Your task to perform on an android device: change alarm snooze length Image 0: 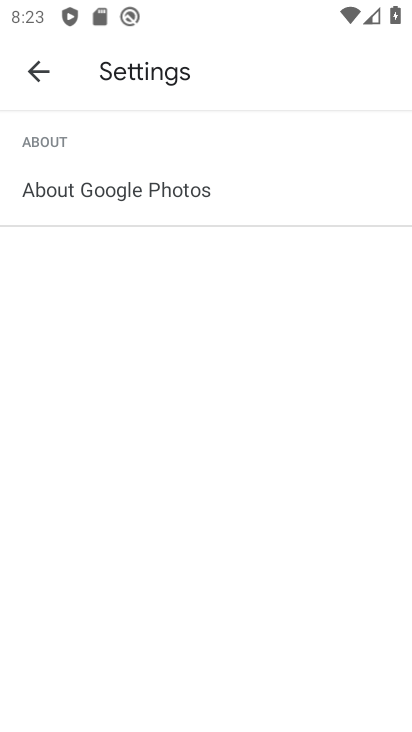
Step 0: press home button
Your task to perform on an android device: change alarm snooze length Image 1: 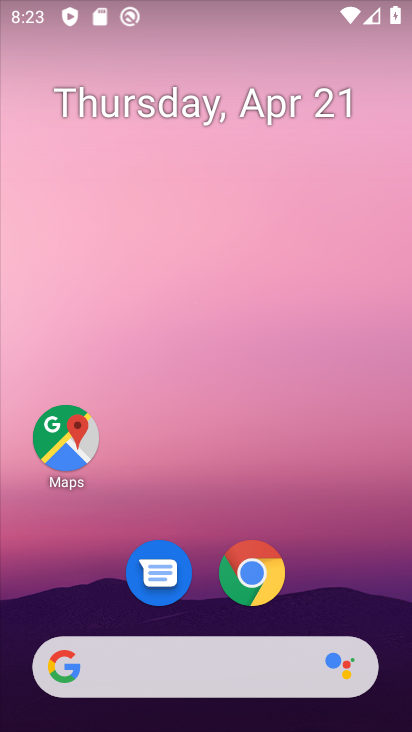
Step 1: drag from (351, 568) to (278, 162)
Your task to perform on an android device: change alarm snooze length Image 2: 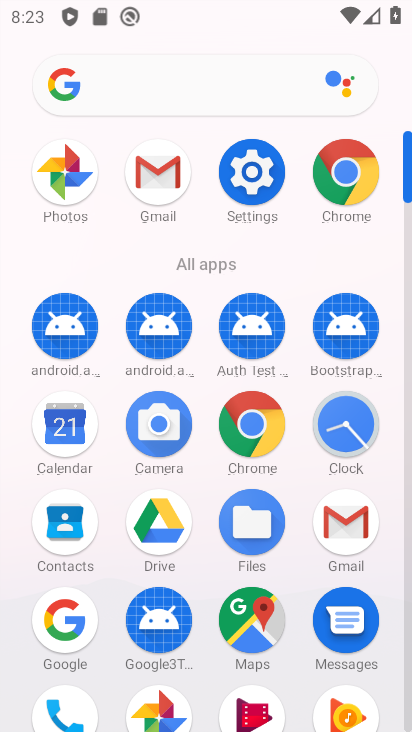
Step 2: drag from (207, 278) to (185, 170)
Your task to perform on an android device: change alarm snooze length Image 3: 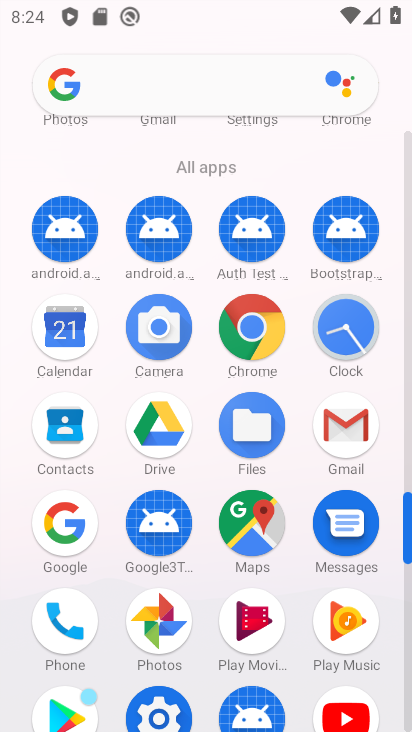
Step 3: click (375, 316)
Your task to perform on an android device: change alarm snooze length Image 4: 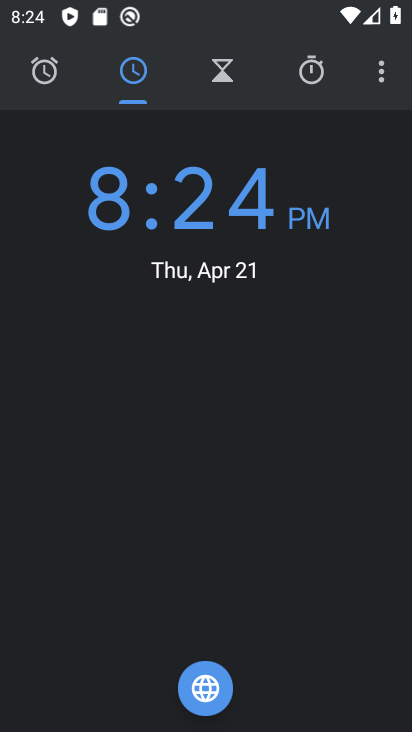
Step 4: click (379, 71)
Your task to perform on an android device: change alarm snooze length Image 5: 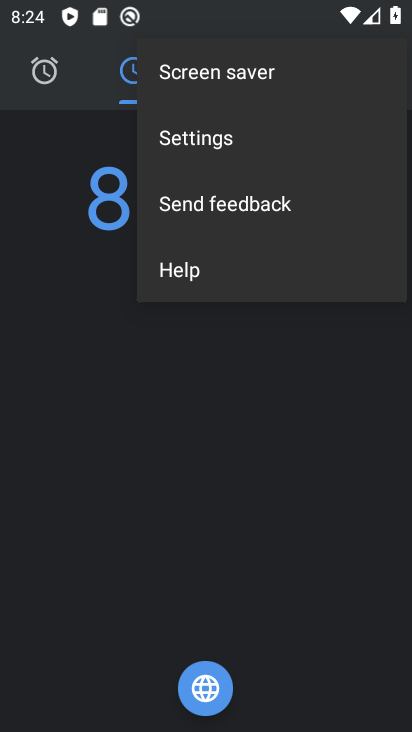
Step 5: click (202, 143)
Your task to perform on an android device: change alarm snooze length Image 6: 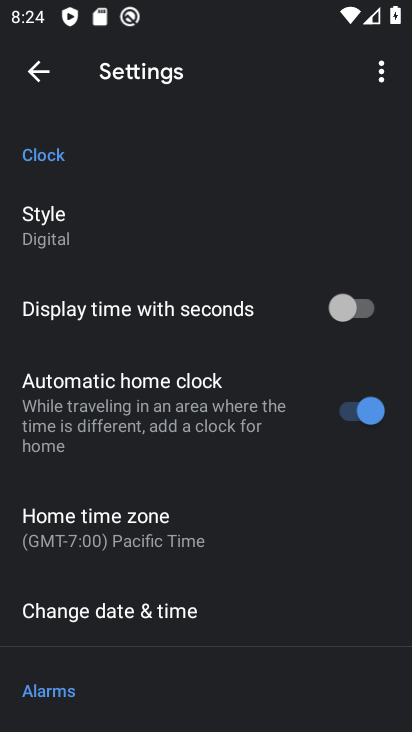
Step 6: drag from (219, 535) to (159, 121)
Your task to perform on an android device: change alarm snooze length Image 7: 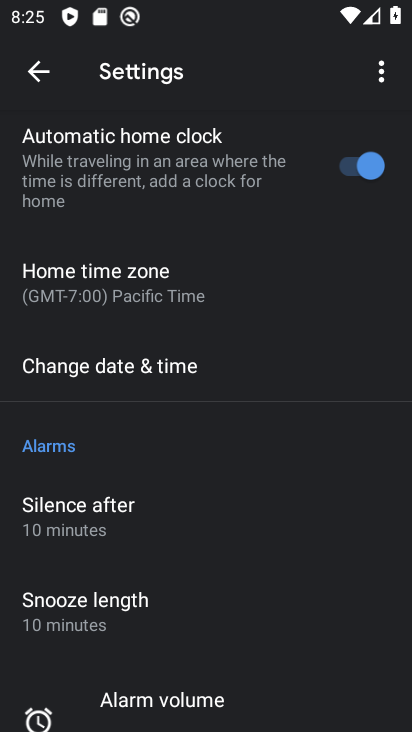
Step 7: click (165, 601)
Your task to perform on an android device: change alarm snooze length Image 8: 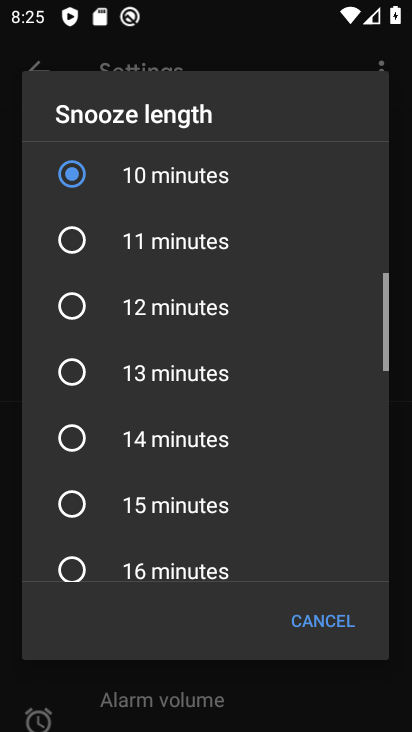
Step 8: click (158, 561)
Your task to perform on an android device: change alarm snooze length Image 9: 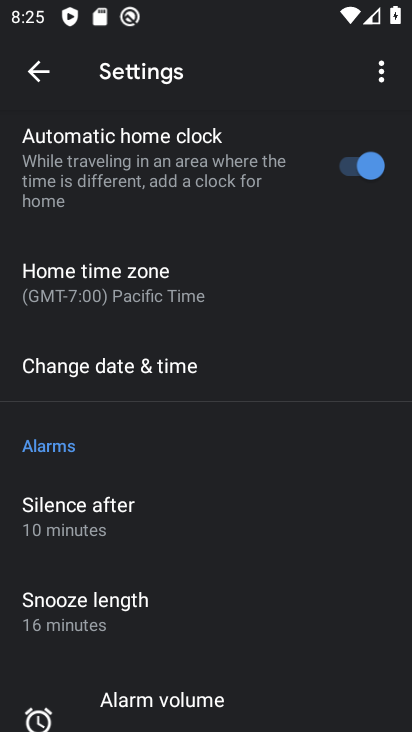
Step 9: task complete